Your task to perform on an android device: turn on airplane mode Image 0: 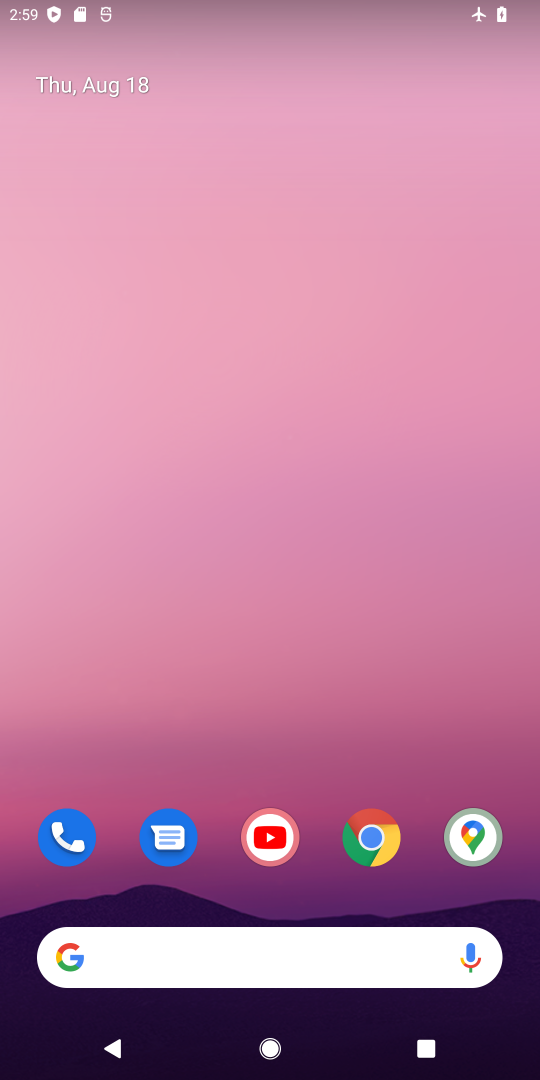
Step 0: drag from (353, 719) to (346, 6)
Your task to perform on an android device: turn on airplane mode Image 1: 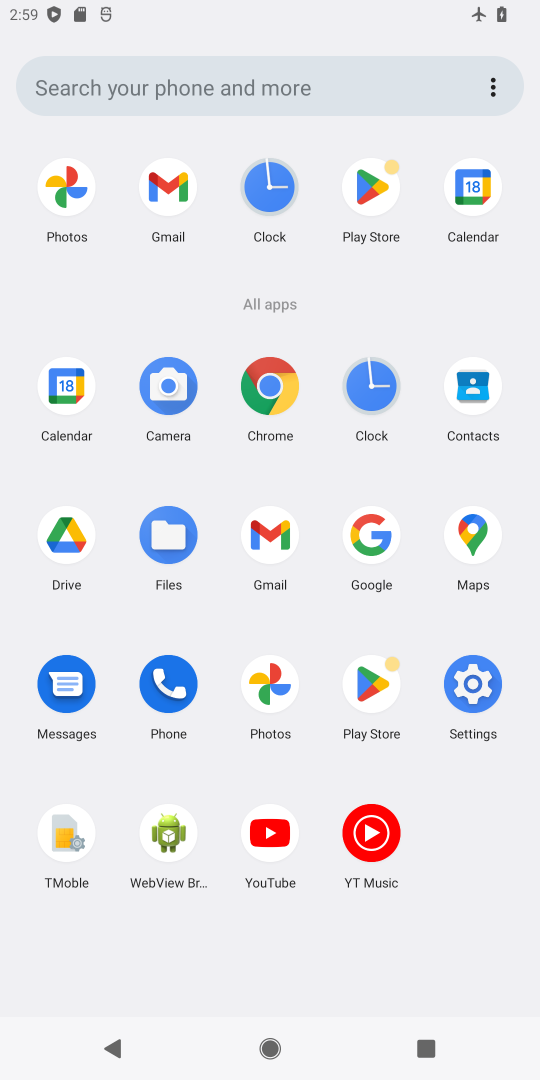
Step 1: click (482, 693)
Your task to perform on an android device: turn on airplane mode Image 2: 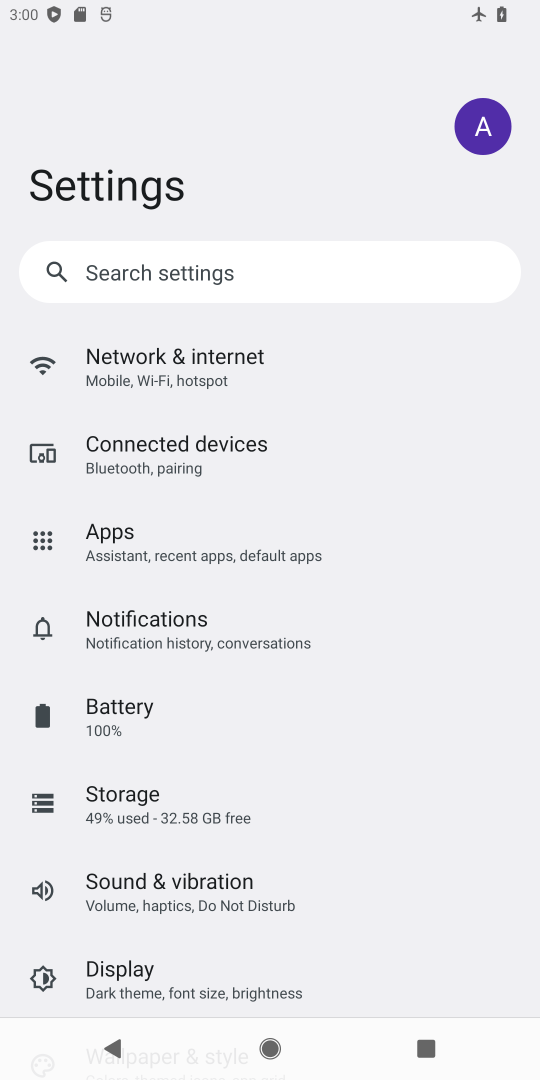
Step 2: click (140, 360)
Your task to perform on an android device: turn on airplane mode Image 3: 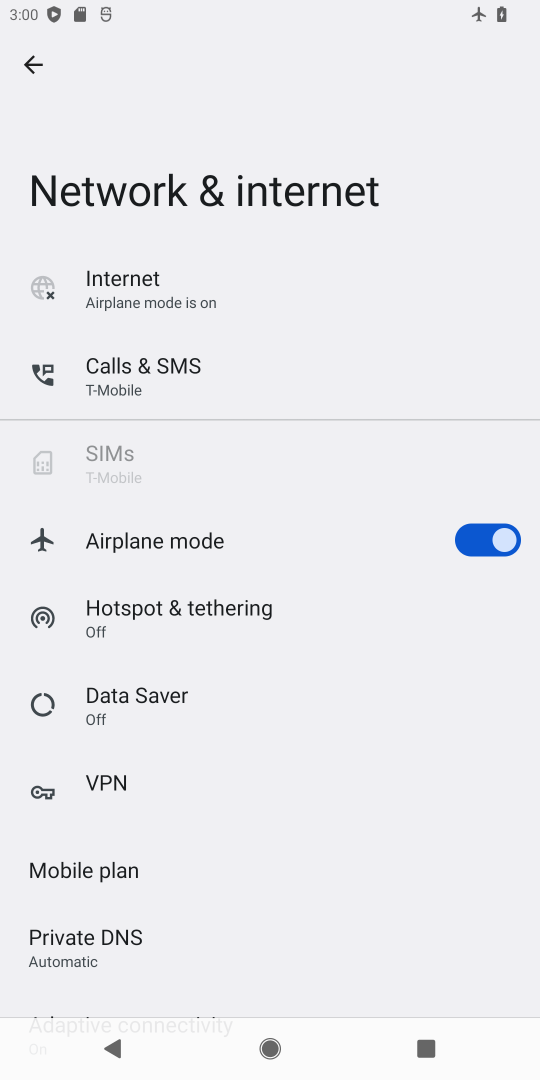
Step 3: task complete